Your task to perform on an android device: clear all cookies in the chrome app Image 0: 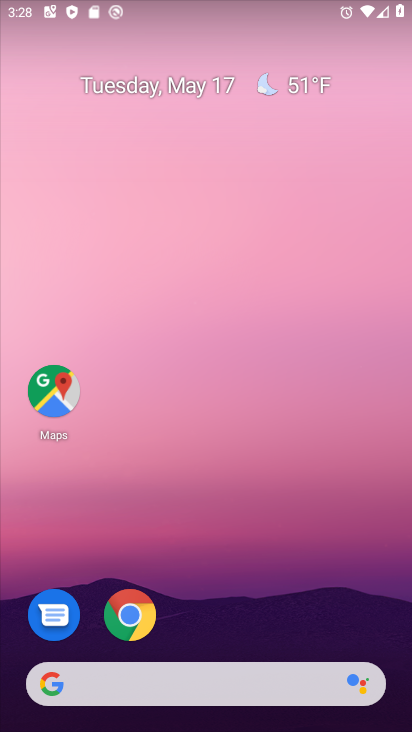
Step 0: click (128, 614)
Your task to perform on an android device: clear all cookies in the chrome app Image 1: 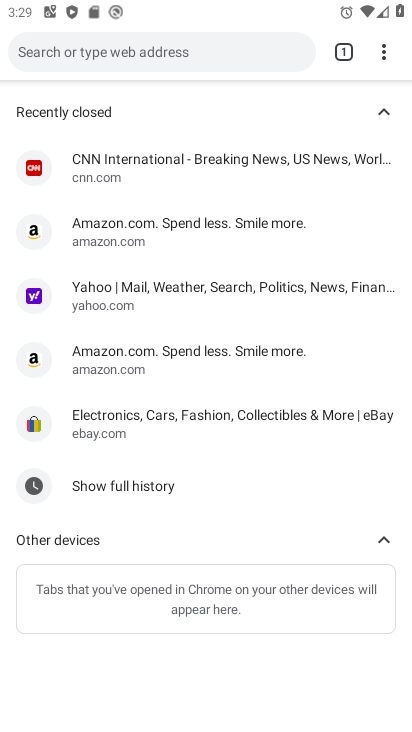
Step 1: task complete